Your task to perform on an android device: Open the calendar and show me this week's events? Image 0: 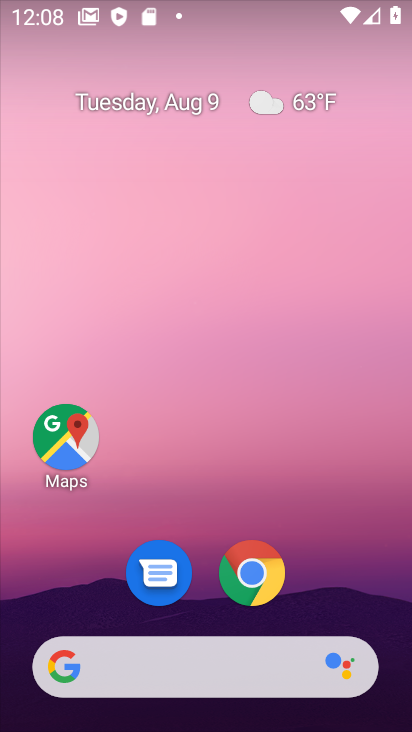
Step 0: drag from (219, 636) to (249, 197)
Your task to perform on an android device: Open the calendar and show me this week's events? Image 1: 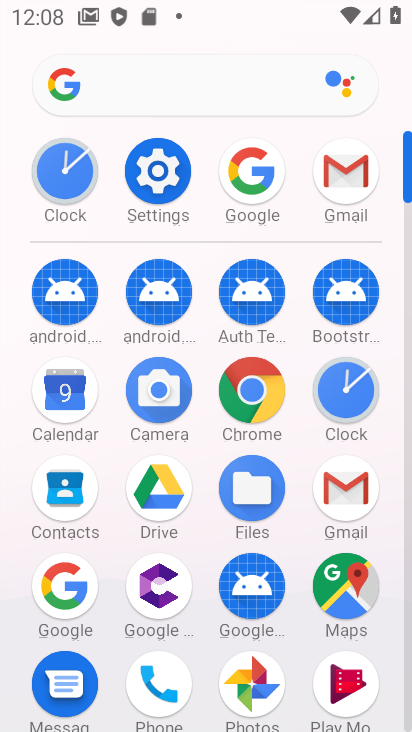
Step 1: click (69, 393)
Your task to perform on an android device: Open the calendar and show me this week's events? Image 2: 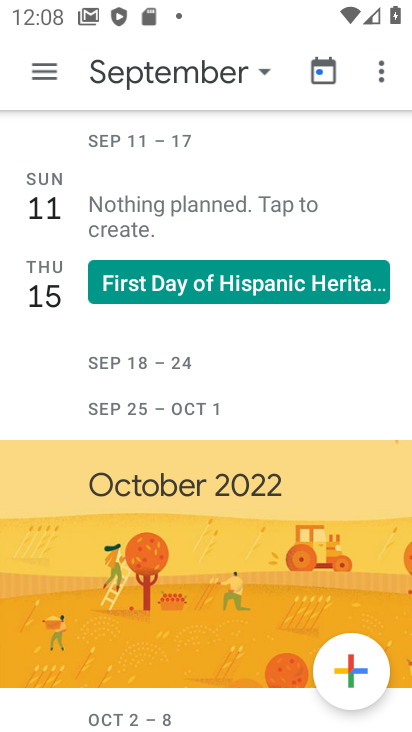
Step 2: click (134, 70)
Your task to perform on an android device: Open the calendar and show me this week's events? Image 3: 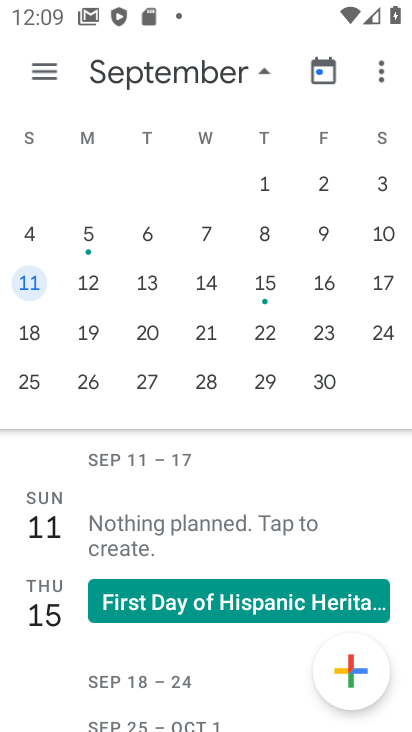
Step 3: drag from (2, 198) to (408, 227)
Your task to perform on an android device: Open the calendar and show me this week's events? Image 4: 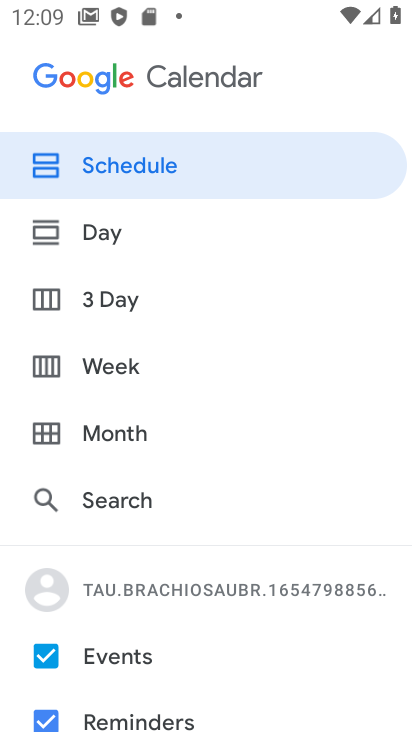
Step 4: click (362, 162)
Your task to perform on an android device: Open the calendar and show me this week's events? Image 5: 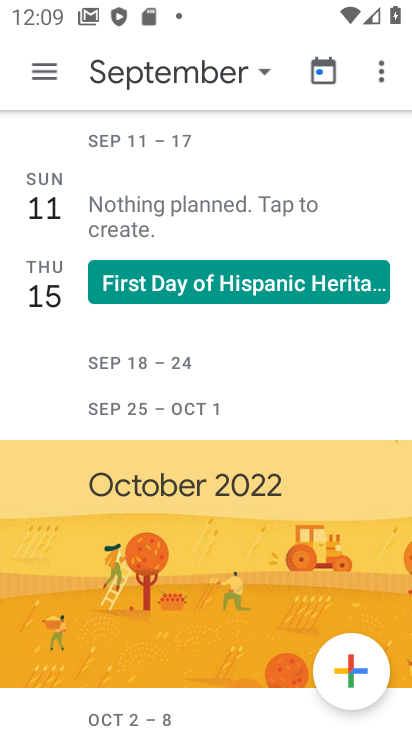
Step 5: task complete